Your task to perform on an android device: Go to settings Image 0: 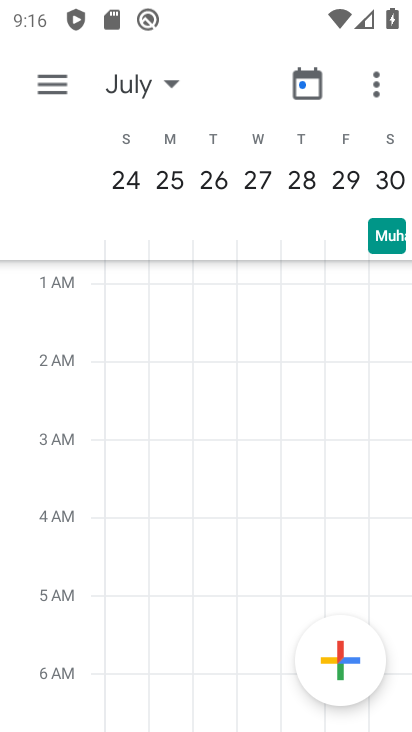
Step 0: press home button
Your task to perform on an android device: Go to settings Image 1: 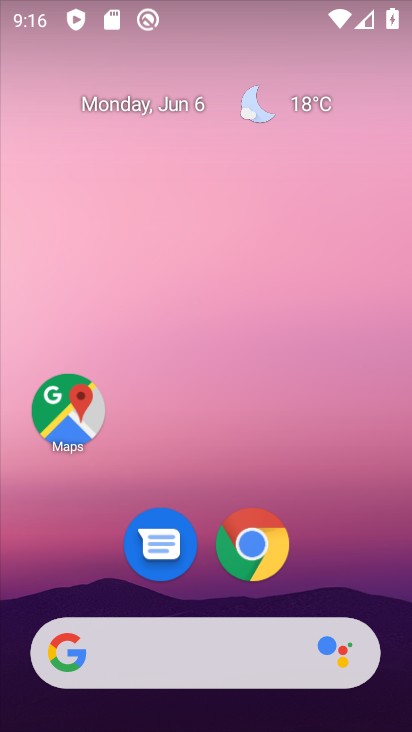
Step 1: drag from (386, 646) to (290, 139)
Your task to perform on an android device: Go to settings Image 2: 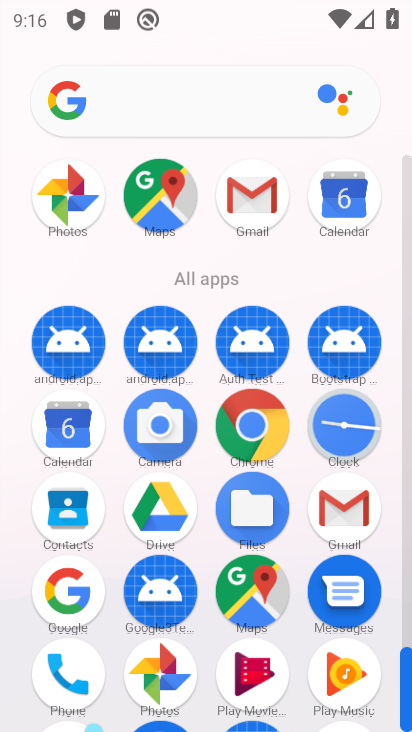
Step 2: click (403, 594)
Your task to perform on an android device: Go to settings Image 3: 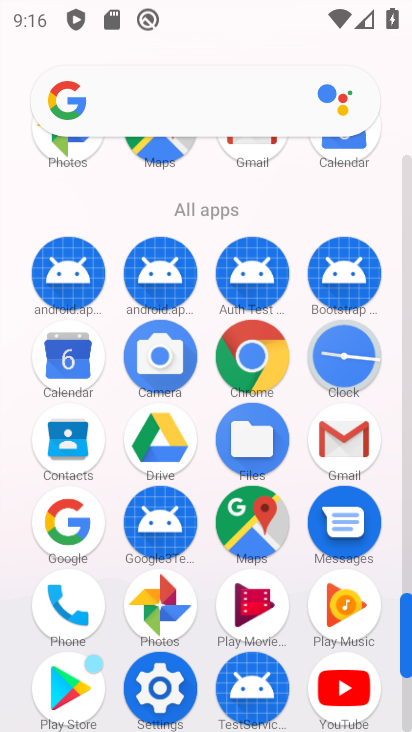
Step 3: click (158, 686)
Your task to perform on an android device: Go to settings Image 4: 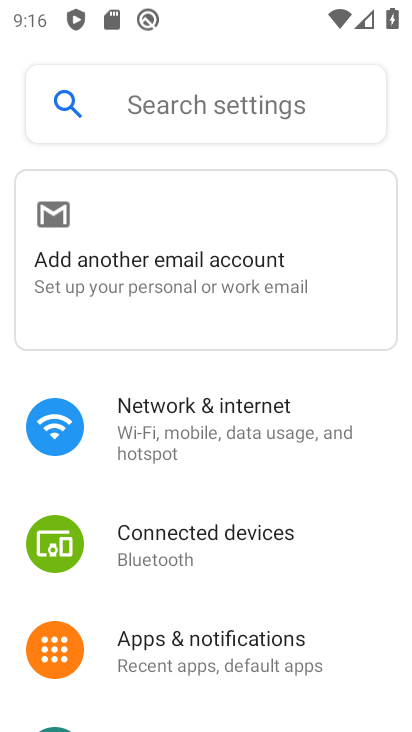
Step 4: task complete